Your task to perform on an android device: empty trash in google photos Image 0: 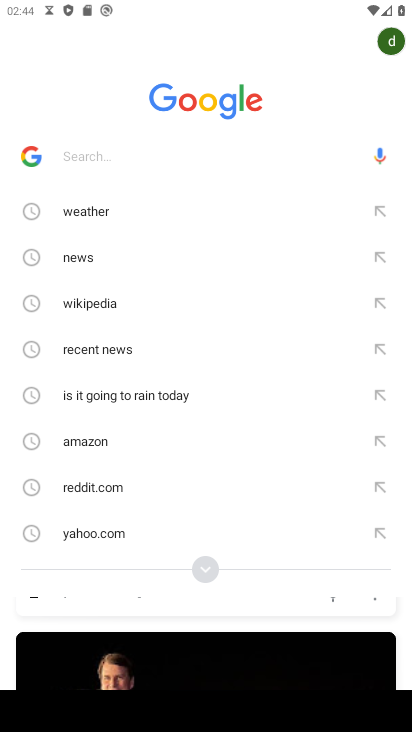
Step 0: press home button
Your task to perform on an android device: empty trash in google photos Image 1: 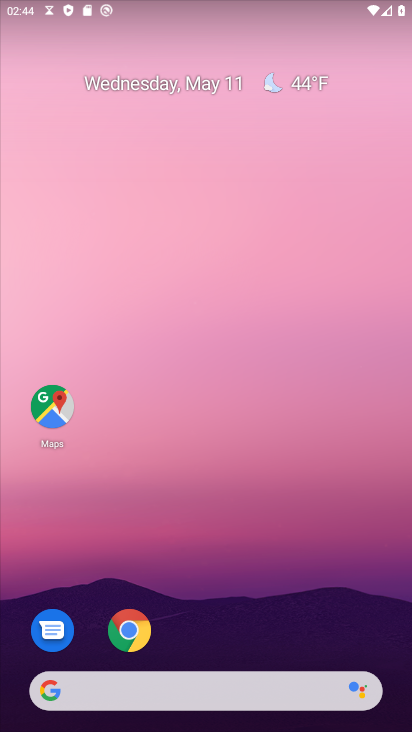
Step 1: drag from (221, 727) to (214, 114)
Your task to perform on an android device: empty trash in google photos Image 2: 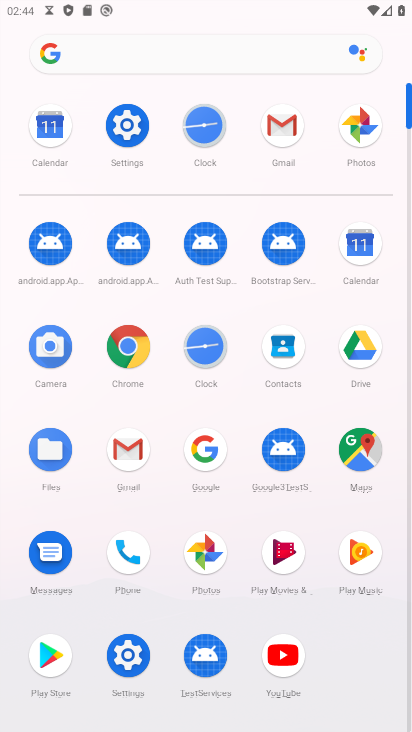
Step 2: click (205, 548)
Your task to perform on an android device: empty trash in google photos Image 3: 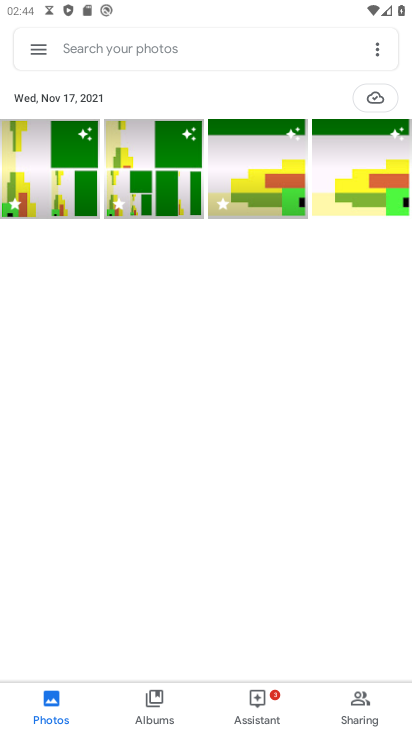
Step 3: click (40, 45)
Your task to perform on an android device: empty trash in google photos Image 4: 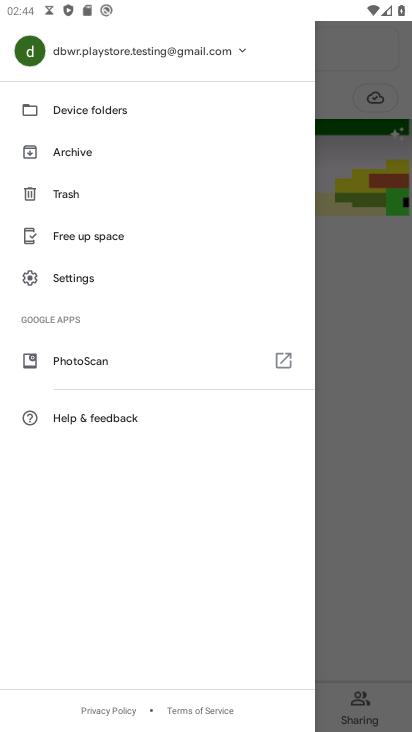
Step 4: click (58, 191)
Your task to perform on an android device: empty trash in google photos Image 5: 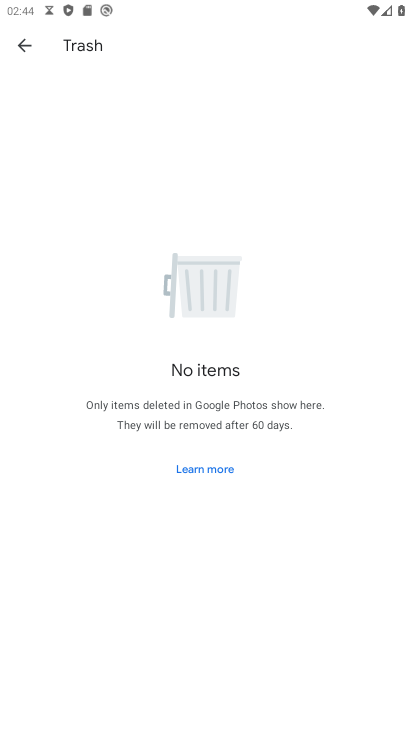
Step 5: task complete